Your task to perform on an android device: Open Wikipedia Image 0: 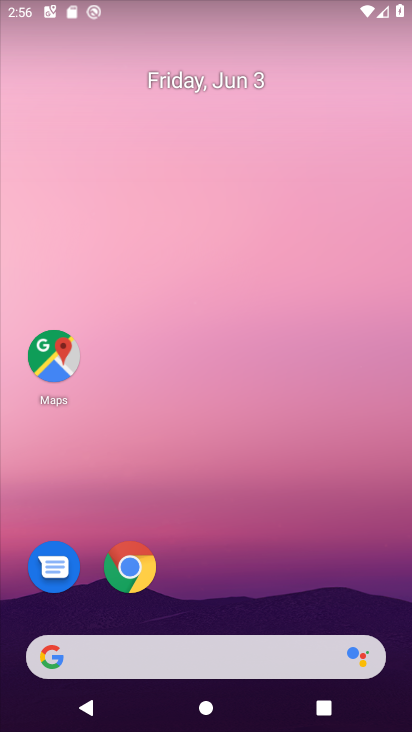
Step 0: click (116, 566)
Your task to perform on an android device: Open Wikipedia Image 1: 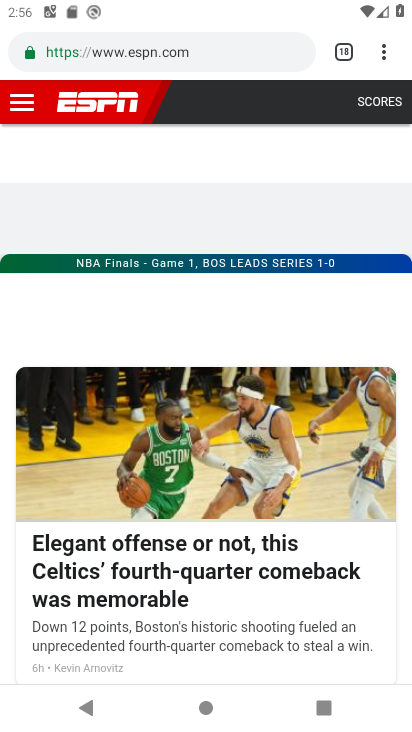
Step 1: click (392, 40)
Your task to perform on an android device: Open Wikipedia Image 2: 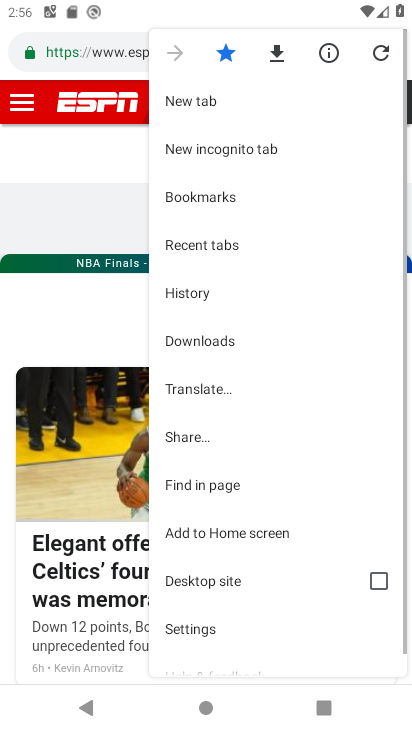
Step 2: click (224, 106)
Your task to perform on an android device: Open Wikipedia Image 3: 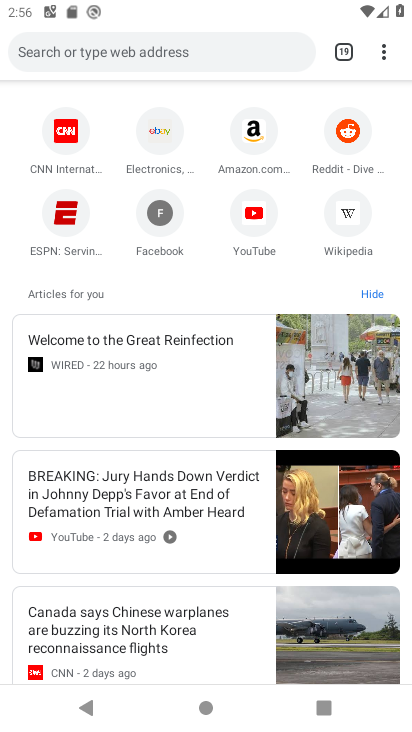
Step 3: click (343, 210)
Your task to perform on an android device: Open Wikipedia Image 4: 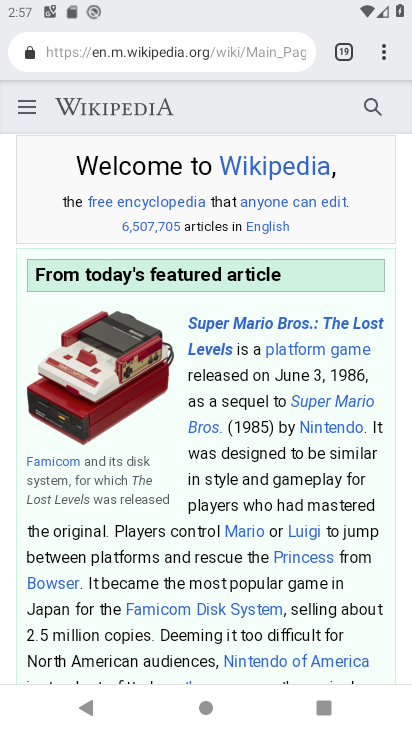
Step 4: task complete